Your task to perform on an android device: turn on the 12-hour format for clock Image 0: 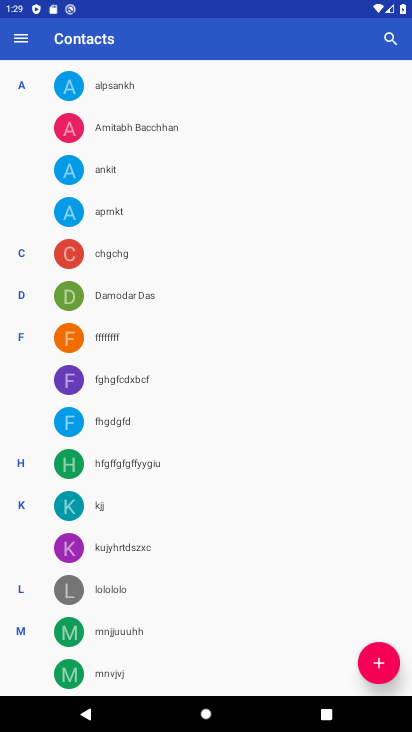
Step 0: press home button
Your task to perform on an android device: turn on the 12-hour format for clock Image 1: 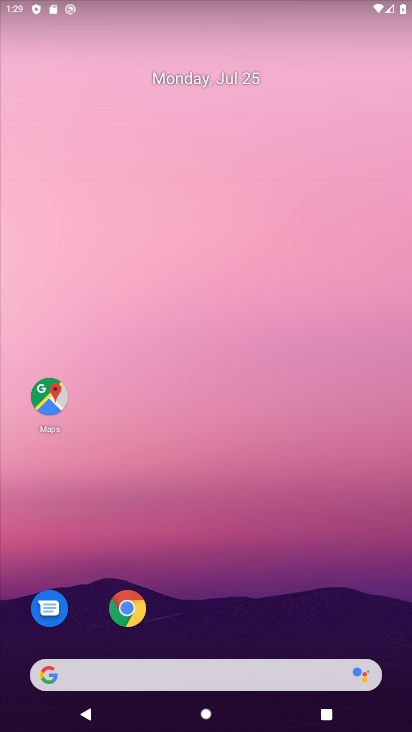
Step 1: click (224, 188)
Your task to perform on an android device: turn on the 12-hour format for clock Image 2: 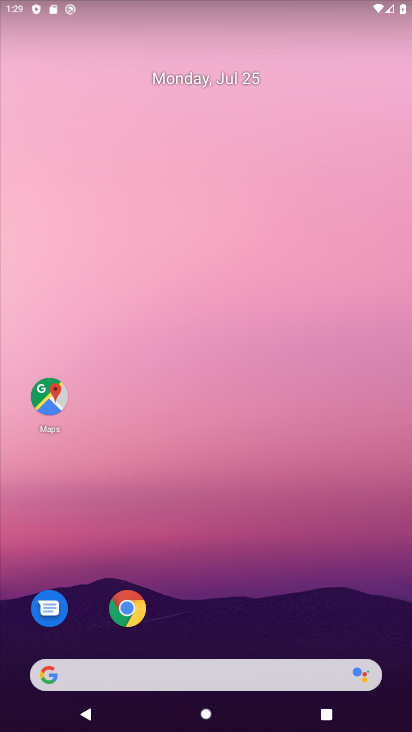
Step 2: drag from (238, 638) to (234, 208)
Your task to perform on an android device: turn on the 12-hour format for clock Image 3: 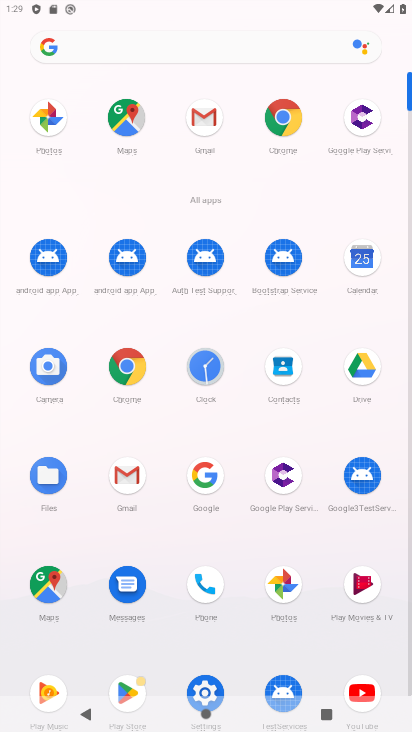
Step 3: click (190, 373)
Your task to perform on an android device: turn on the 12-hour format for clock Image 4: 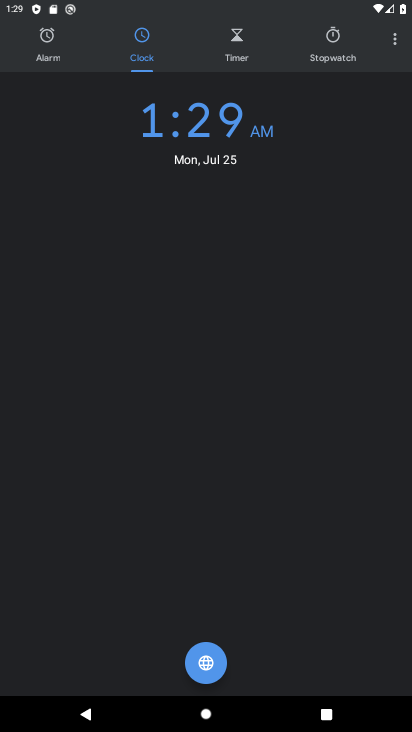
Step 4: click (395, 46)
Your task to perform on an android device: turn on the 12-hour format for clock Image 5: 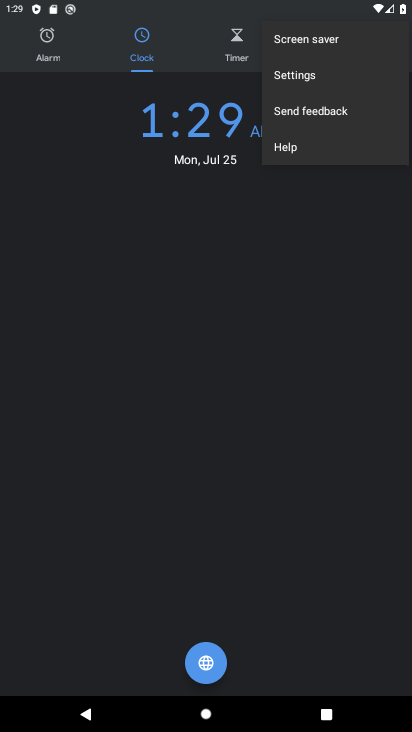
Step 5: click (308, 70)
Your task to perform on an android device: turn on the 12-hour format for clock Image 6: 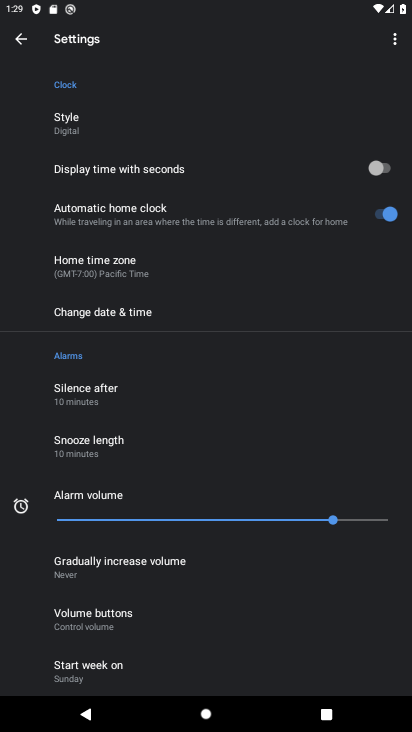
Step 6: click (105, 312)
Your task to perform on an android device: turn on the 12-hour format for clock Image 7: 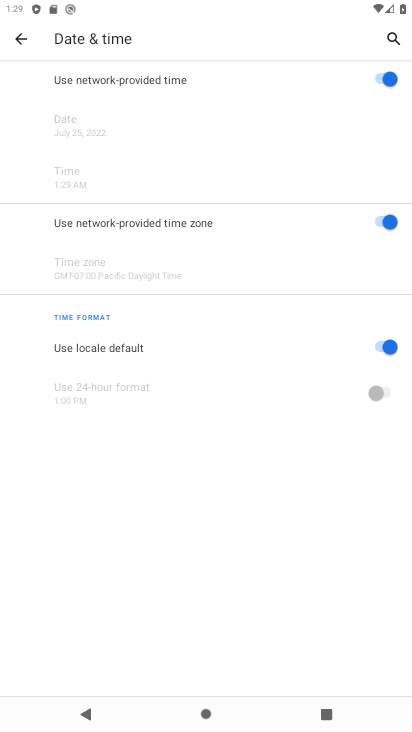
Step 7: task complete